Your task to perform on an android device: Go to Wikipedia Image 0: 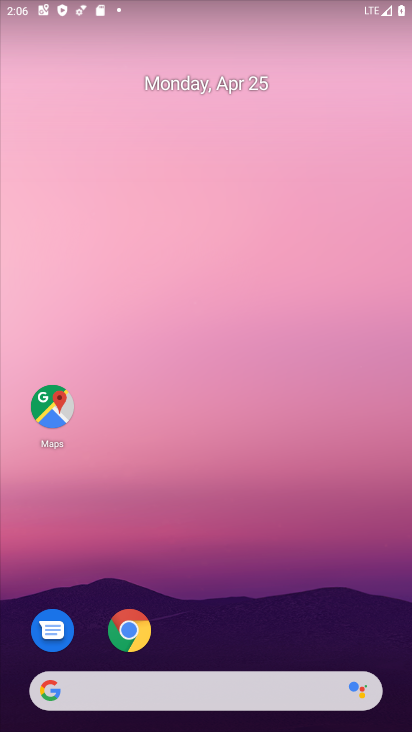
Step 0: drag from (354, 616) to (340, 20)
Your task to perform on an android device: Go to Wikipedia Image 1: 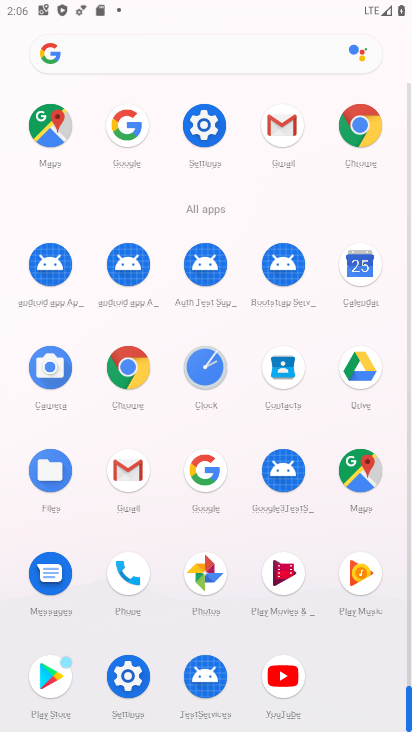
Step 1: click (356, 122)
Your task to perform on an android device: Go to Wikipedia Image 2: 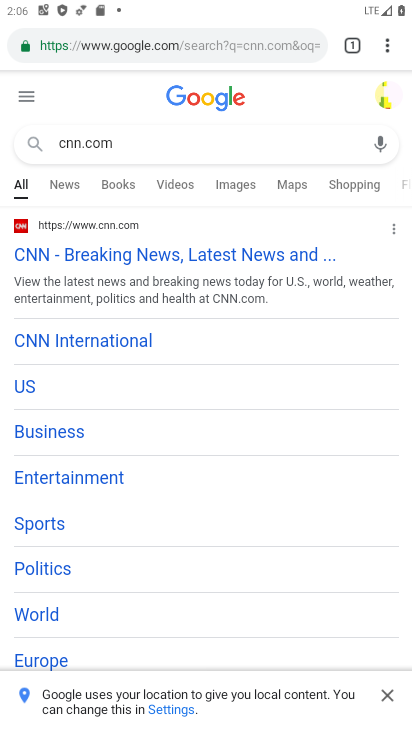
Step 2: click (234, 45)
Your task to perform on an android device: Go to Wikipedia Image 3: 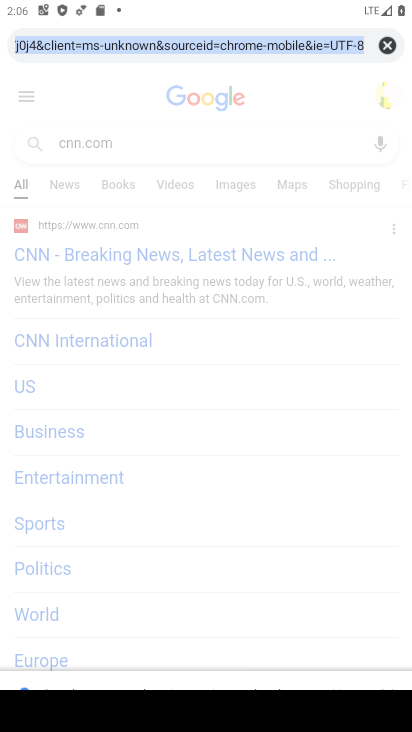
Step 3: click (384, 41)
Your task to perform on an android device: Go to Wikipedia Image 4: 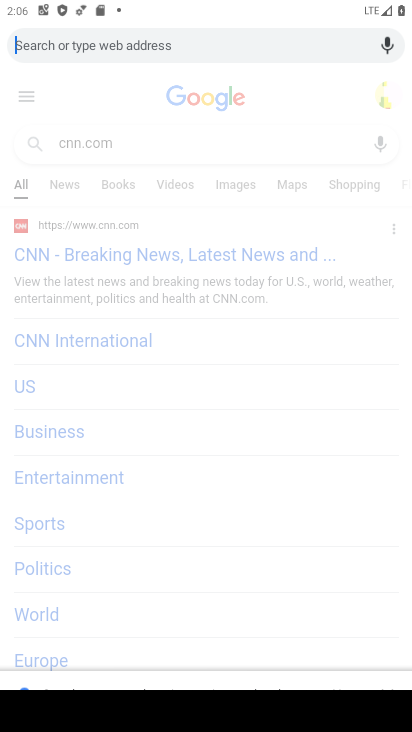
Step 4: type "wikipedia"
Your task to perform on an android device: Go to Wikipedia Image 5: 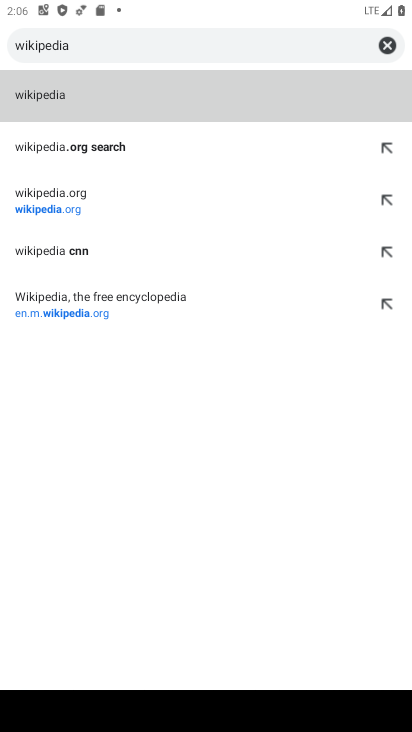
Step 5: click (137, 91)
Your task to perform on an android device: Go to Wikipedia Image 6: 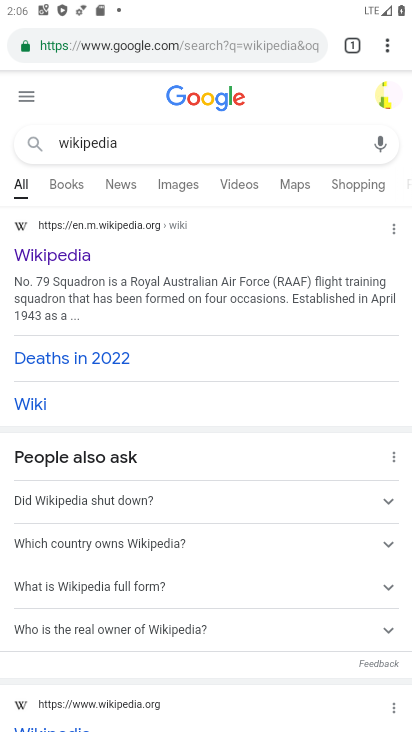
Step 6: click (62, 260)
Your task to perform on an android device: Go to Wikipedia Image 7: 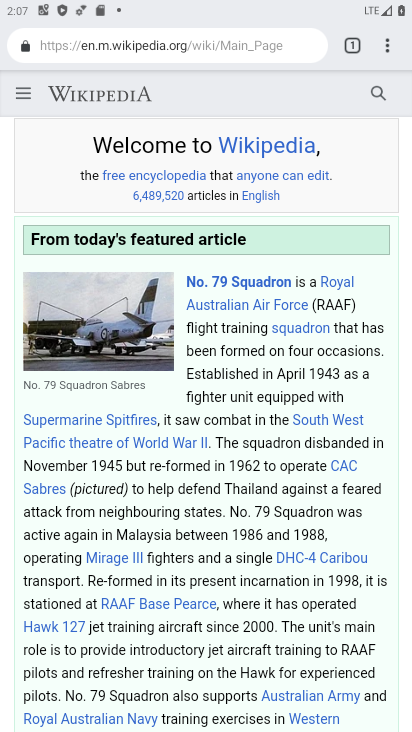
Step 7: task complete